Your task to perform on an android device: What's on my calendar today? Image 0: 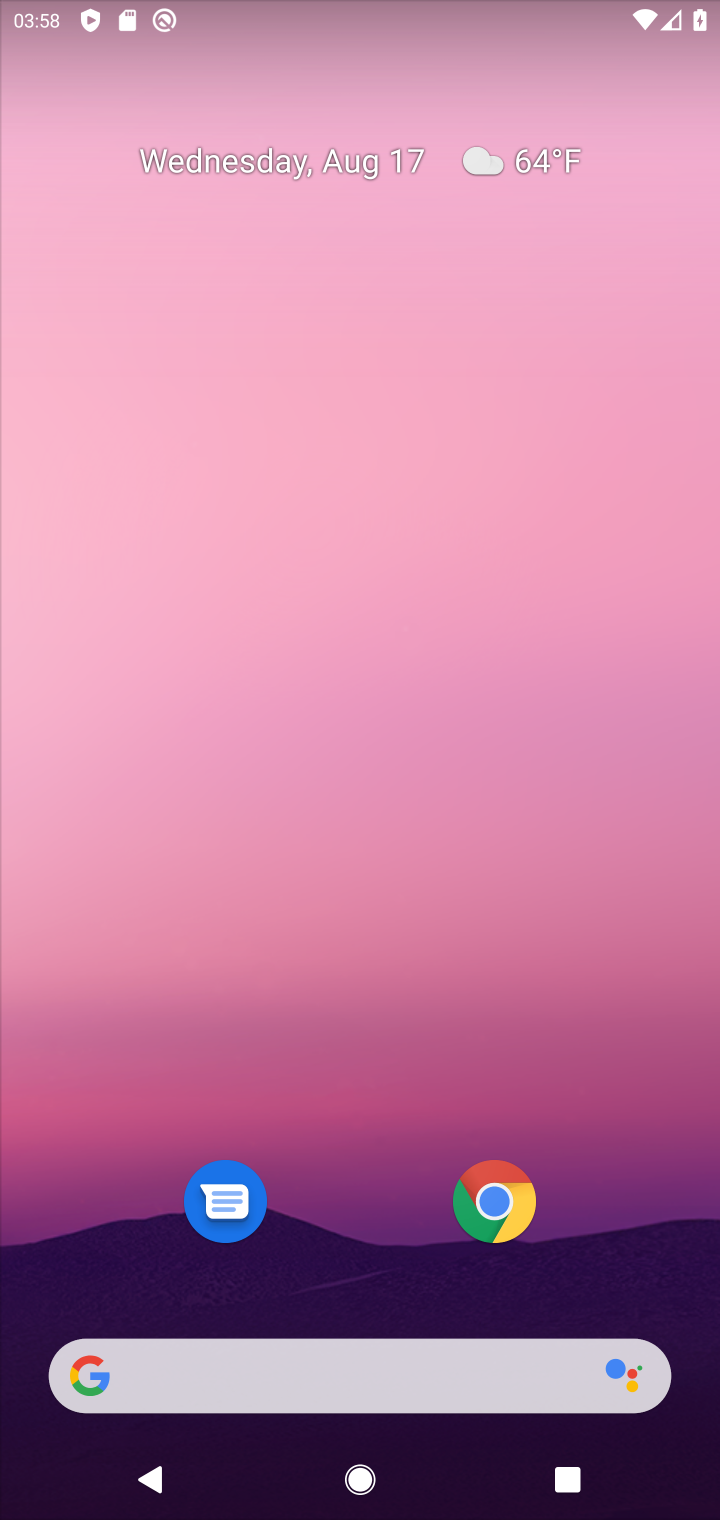
Step 0: drag from (348, 1288) to (557, 0)
Your task to perform on an android device: What's on my calendar today? Image 1: 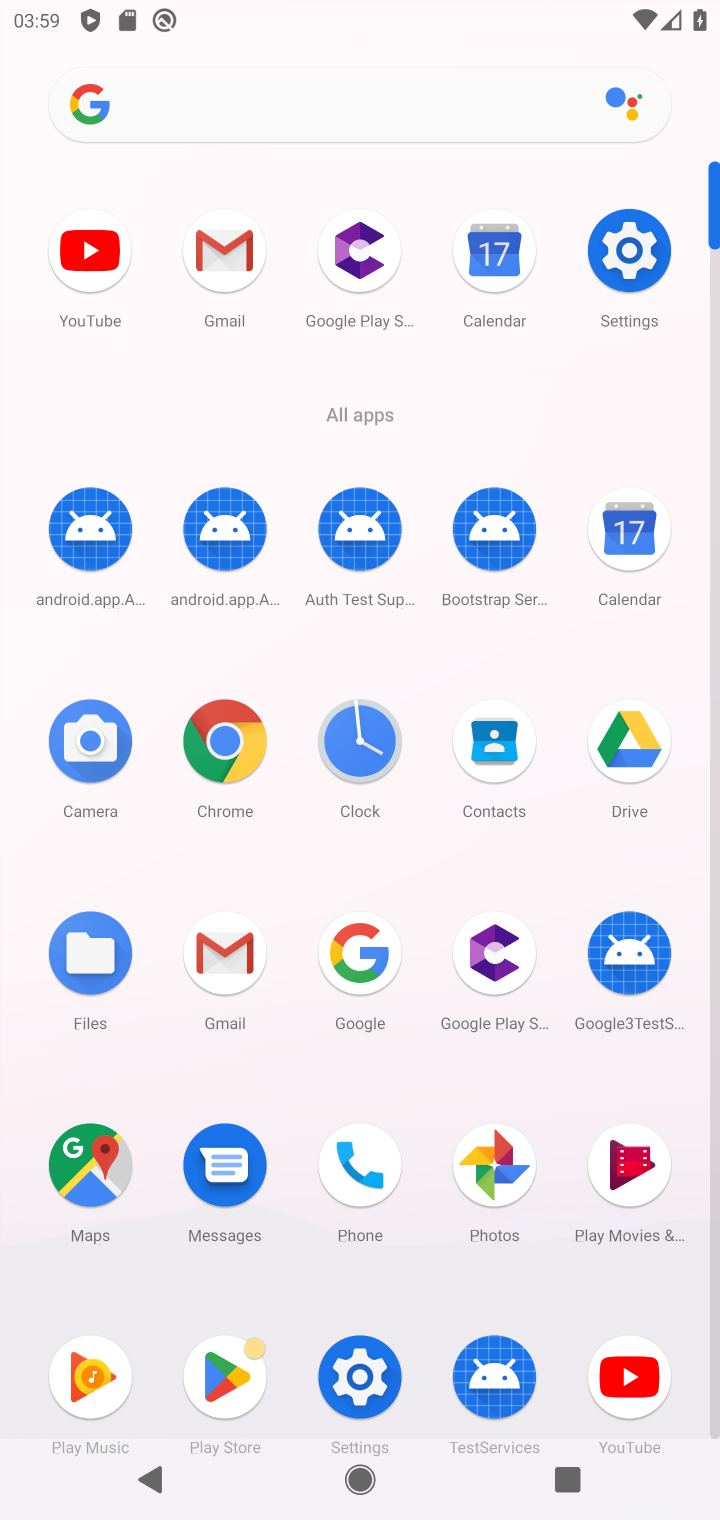
Step 1: click (632, 541)
Your task to perform on an android device: What's on my calendar today? Image 2: 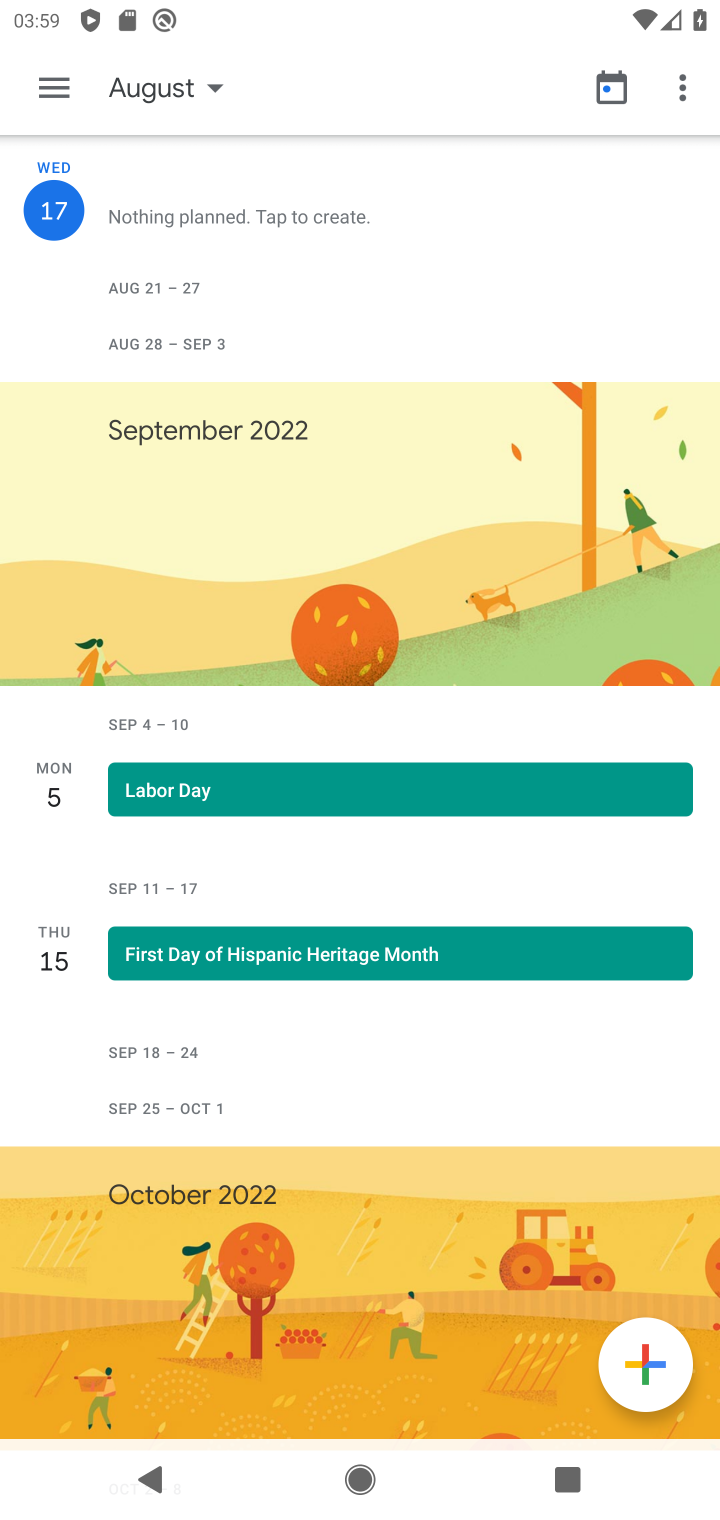
Step 2: click (57, 85)
Your task to perform on an android device: What's on my calendar today? Image 3: 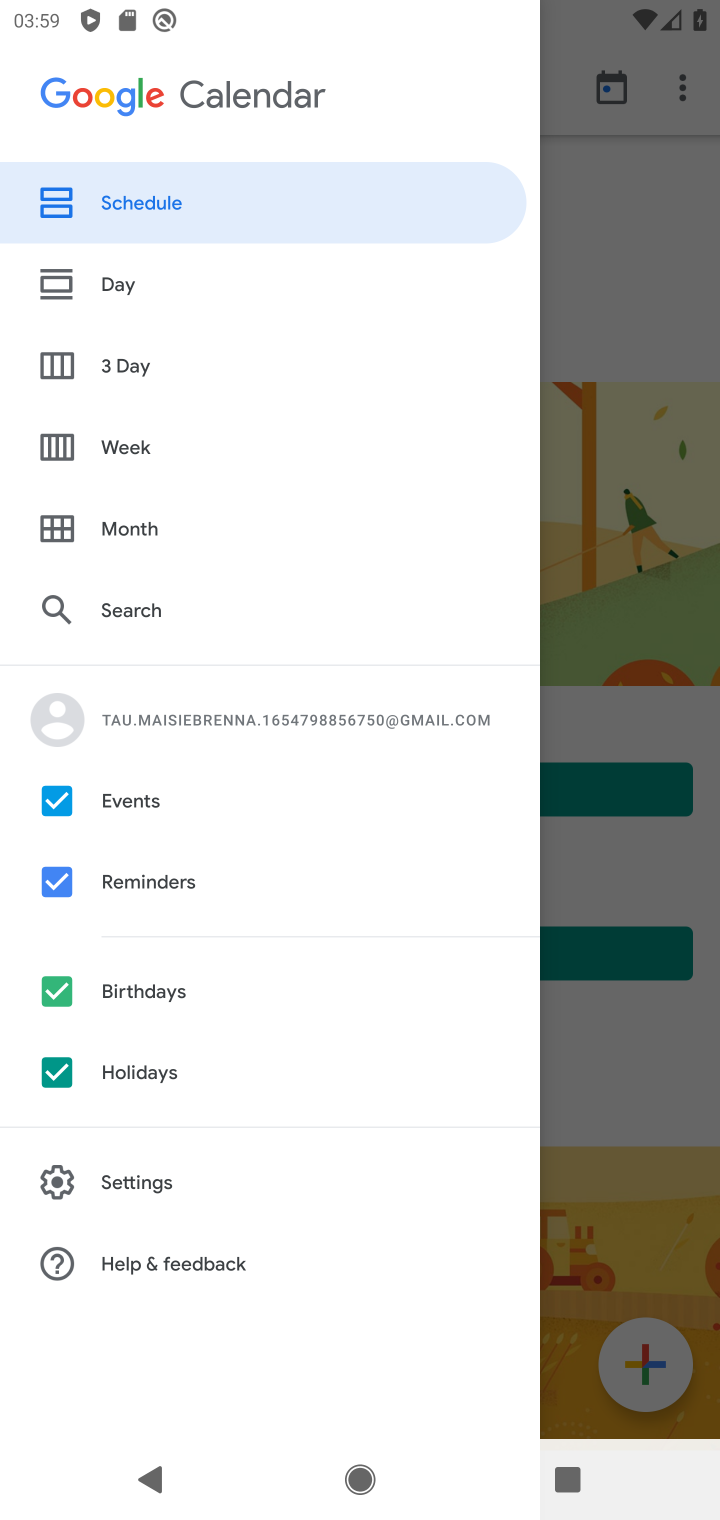
Step 3: click (112, 275)
Your task to perform on an android device: What's on my calendar today? Image 4: 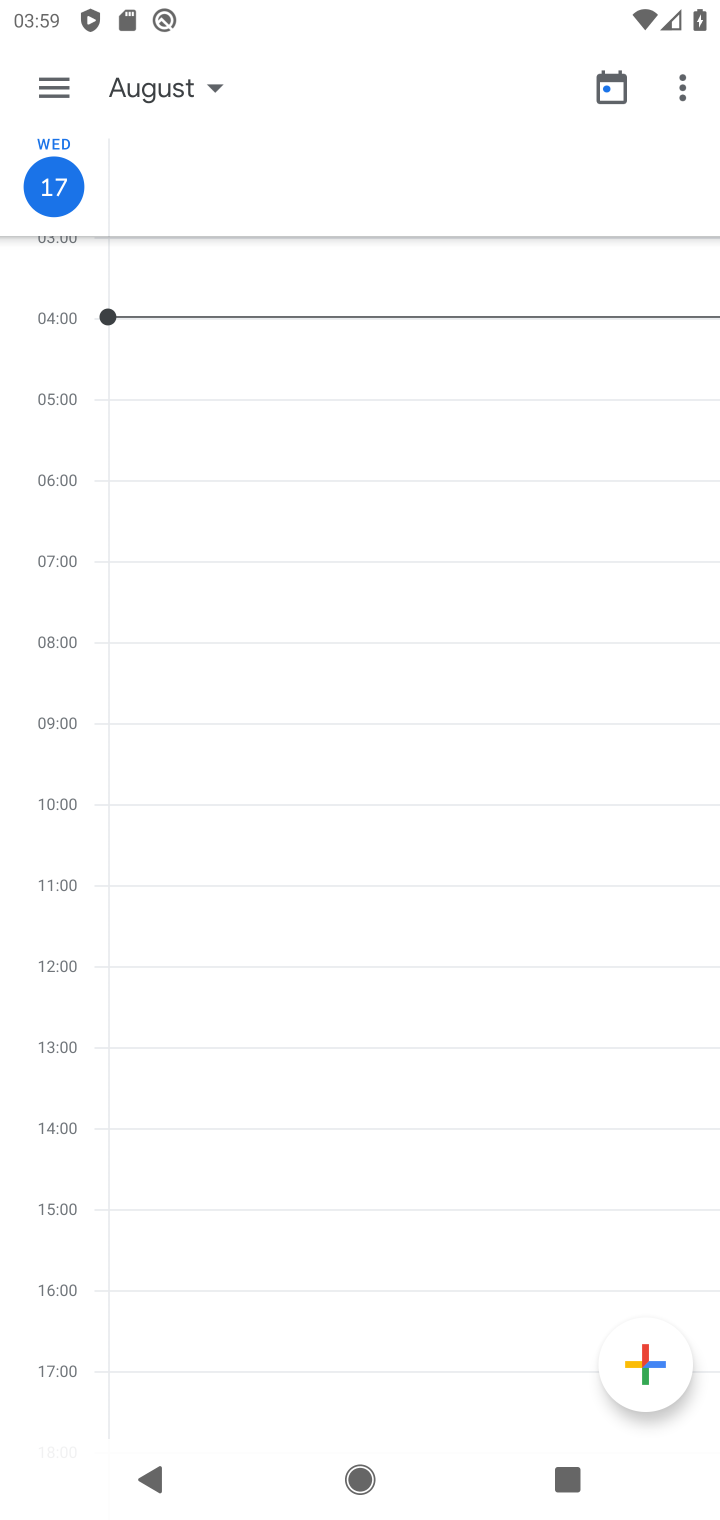
Step 4: task complete